Your task to perform on an android device: turn pop-ups on in chrome Image 0: 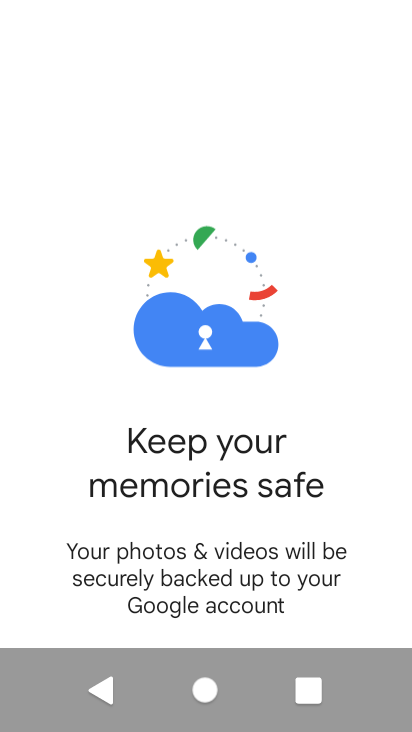
Step 0: drag from (186, 567) to (195, 515)
Your task to perform on an android device: turn pop-ups on in chrome Image 1: 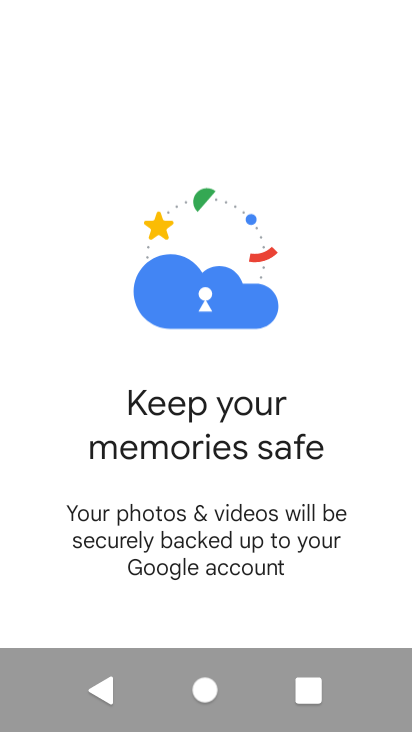
Step 1: press home button
Your task to perform on an android device: turn pop-ups on in chrome Image 2: 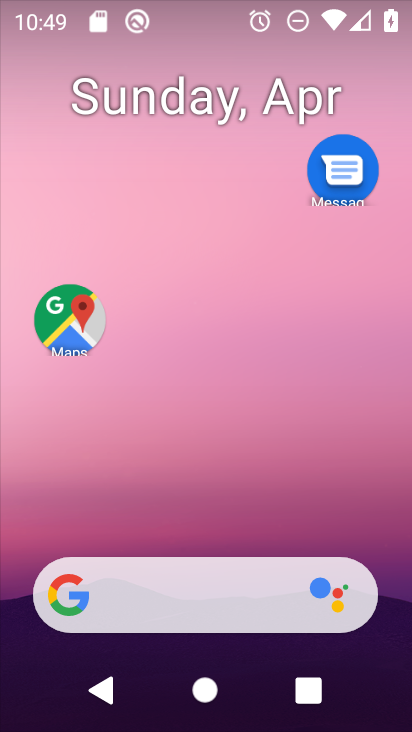
Step 2: click (175, 62)
Your task to perform on an android device: turn pop-ups on in chrome Image 3: 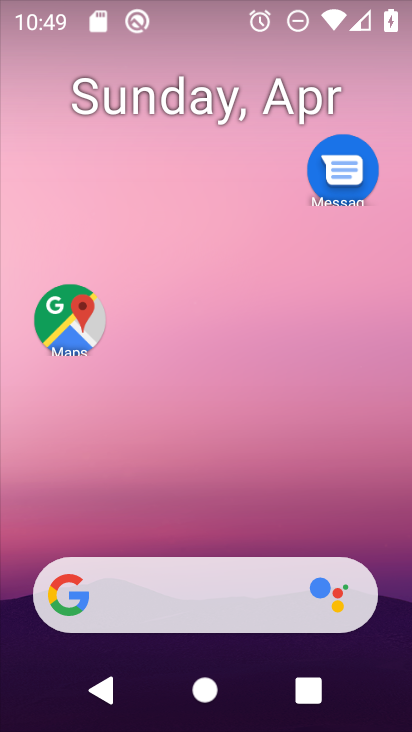
Step 3: drag from (207, 536) to (204, 79)
Your task to perform on an android device: turn pop-ups on in chrome Image 4: 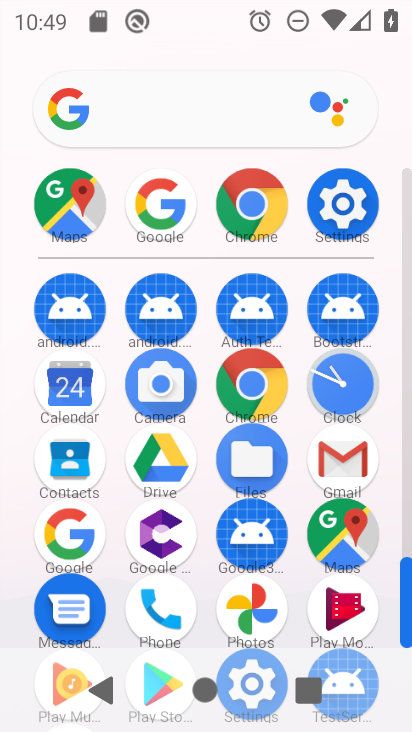
Step 4: click (256, 387)
Your task to perform on an android device: turn pop-ups on in chrome Image 5: 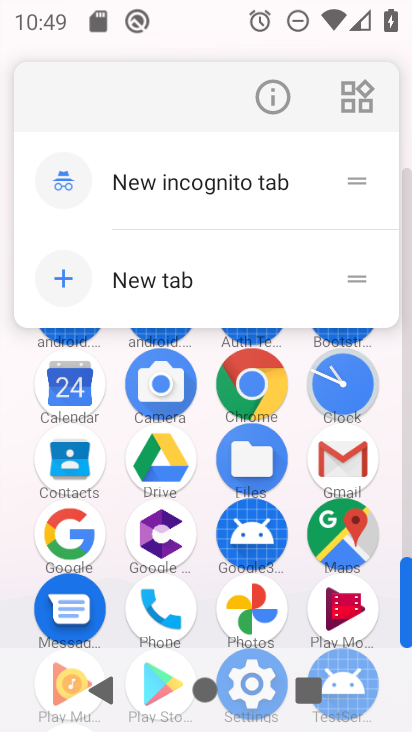
Step 5: click (274, 96)
Your task to perform on an android device: turn pop-ups on in chrome Image 6: 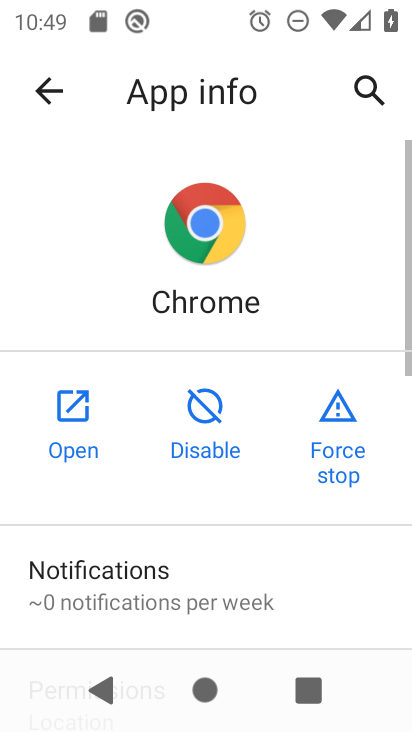
Step 6: click (78, 423)
Your task to perform on an android device: turn pop-ups on in chrome Image 7: 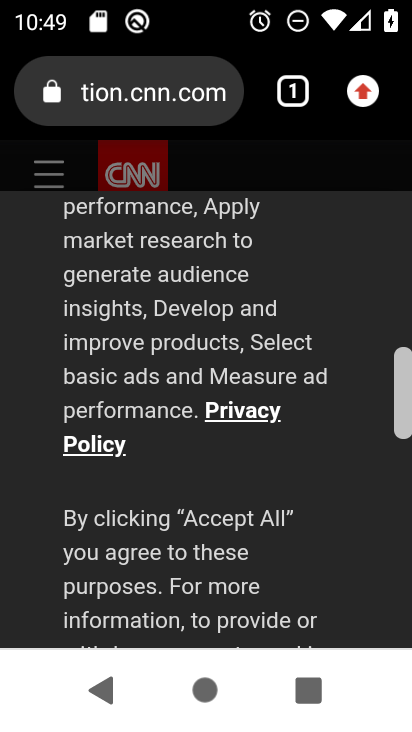
Step 7: drag from (359, 100) to (150, 472)
Your task to perform on an android device: turn pop-ups on in chrome Image 8: 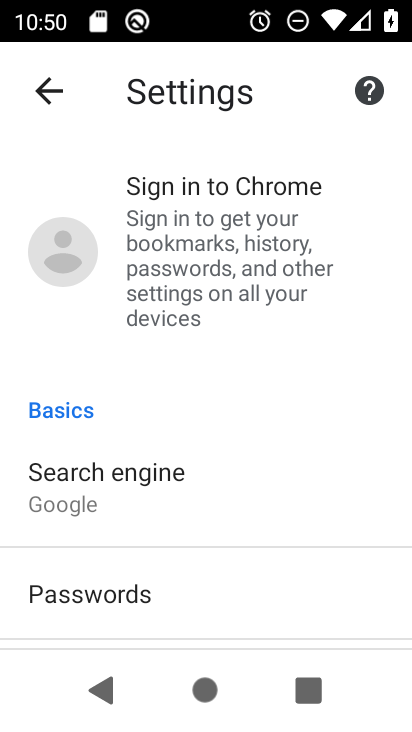
Step 8: drag from (193, 512) to (164, 19)
Your task to perform on an android device: turn pop-ups on in chrome Image 9: 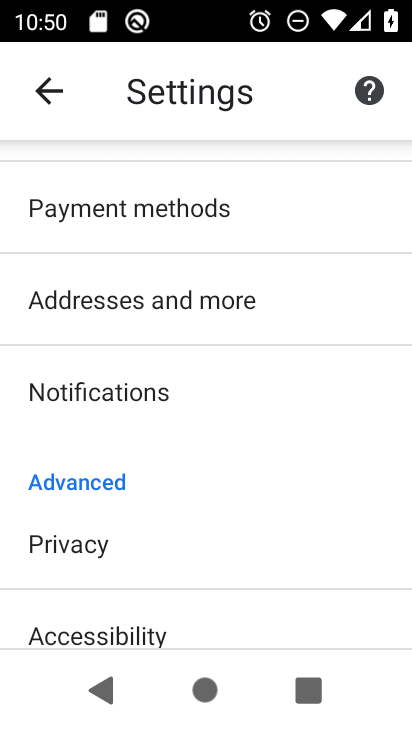
Step 9: drag from (149, 594) to (396, 17)
Your task to perform on an android device: turn pop-ups on in chrome Image 10: 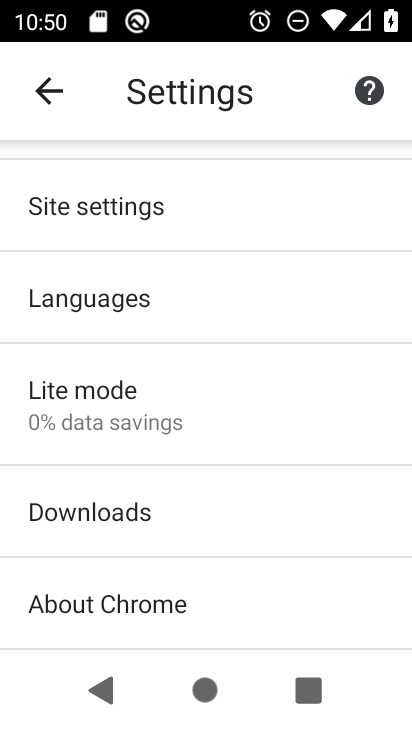
Step 10: drag from (211, 522) to (219, 221)
Your task to perform on an android device: turn pop-ups on in chrome Image 11: 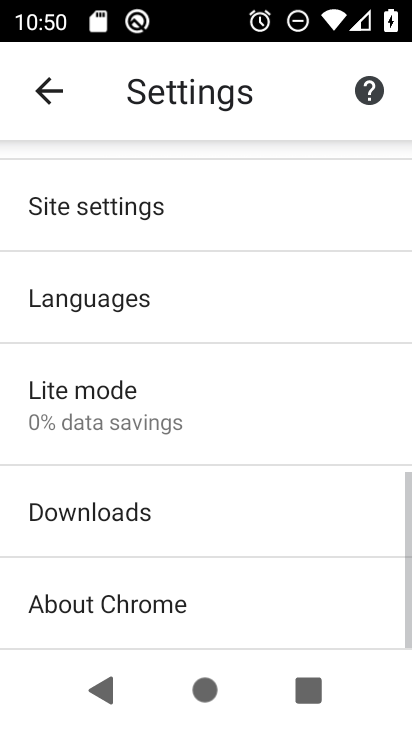
Step 11: click (143, 216)
Your task to perform on an android device: turn pop-ups on in chrome Image 12: 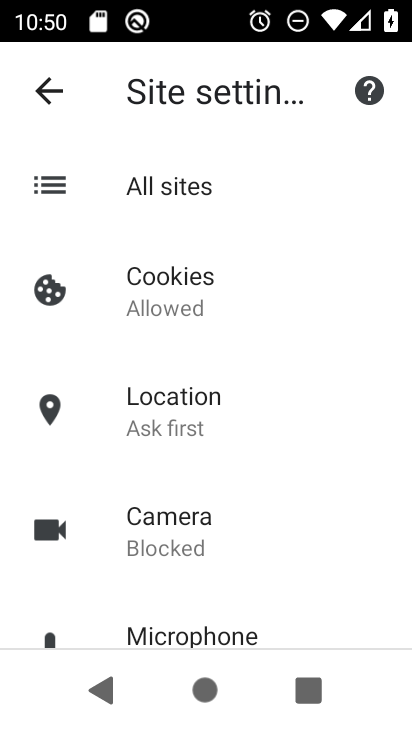
Step 12: drag from (216, 577) to (207, 7)
Your task to perform on an android device: turn pop-ups on in chrome Image 13: 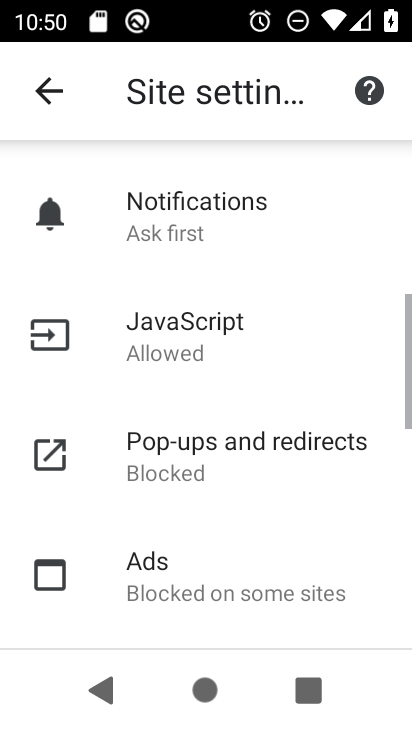
Step 13: click (236, 450)
Your task to perform on an android device: turn pop-ups on in chrome Image 14: 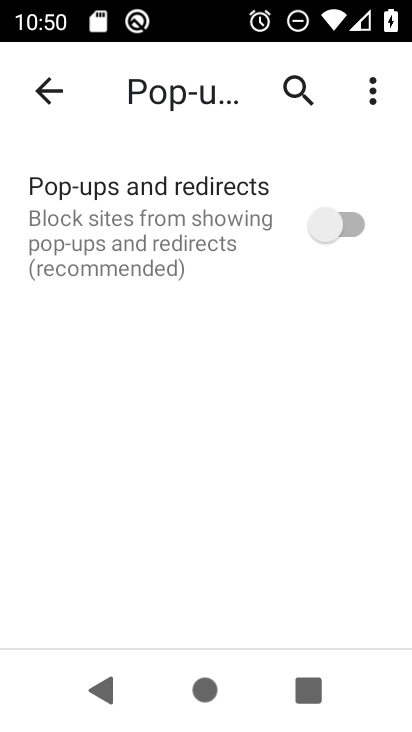
Step 14: click (314, 204)
Your task to perform on an android device: turn pop-ups on in chrome Image 15: 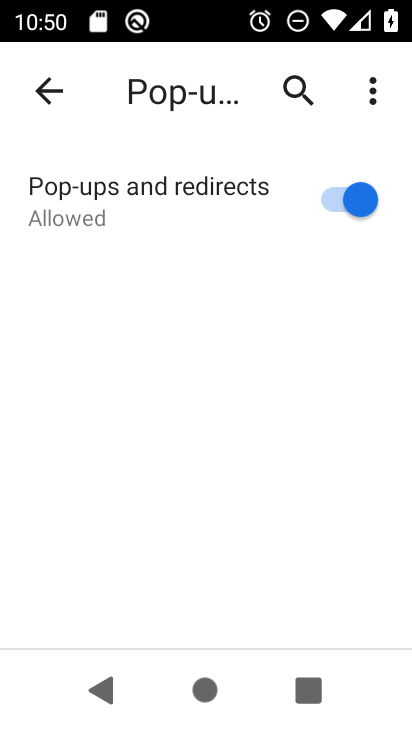
Step 15: task complete